Your task to perform on an android device: Clear the cart on bestbuy.com. Search for "logitech g502" on bestbuy.com, select the first entry, add it to the cart, then select checkout. Image 0: 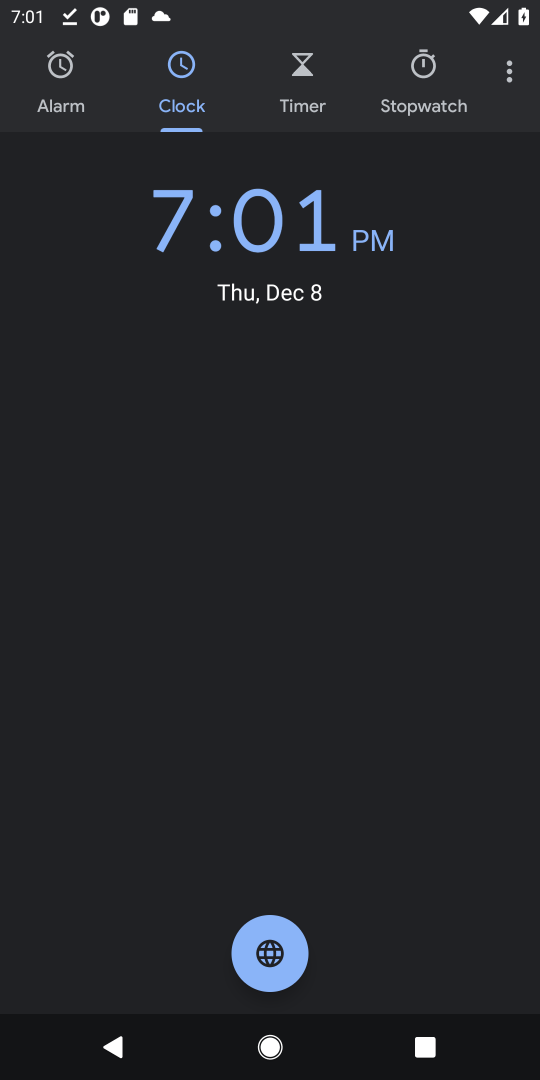
Step 0: click (348, 960)
Your task to perform on an android device: Clear the cart on bestbuy.com. Search for "logitech g502" on bestbuy.com, select the first entry, add it to the cart, then select checkout. Image 1: 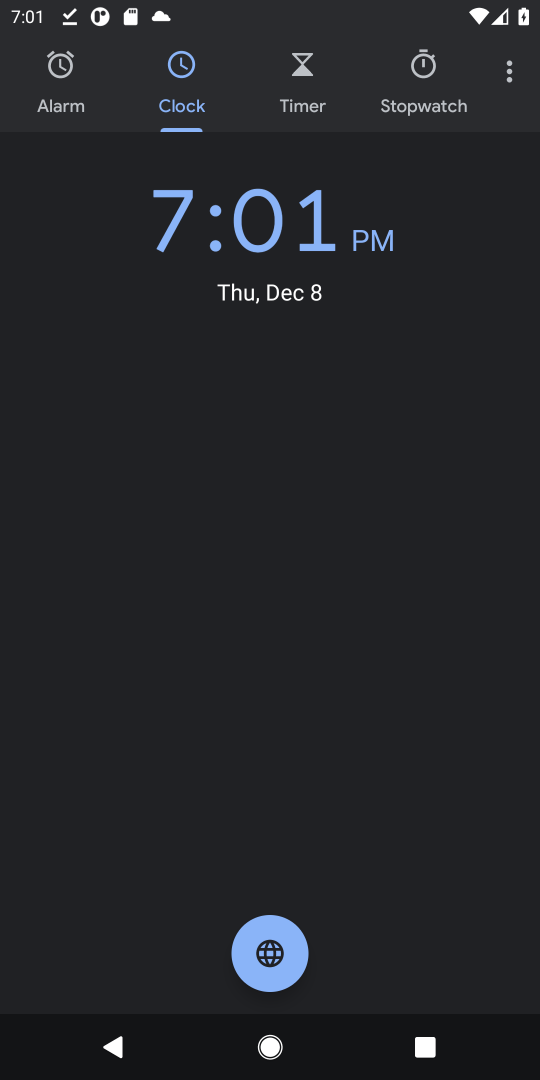
Step 1: press home button
Your task to perform on an android device: Clear the cart on bestbuy.com. Search for "logitech g502" on bestbuy.com, select the first entry, add it to the cart, then select checkout. Image 2: 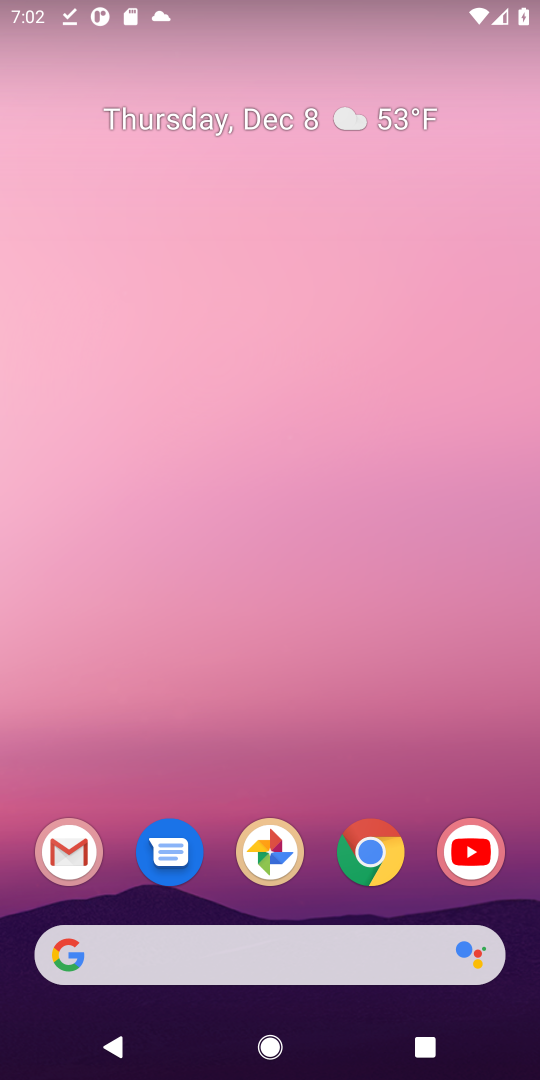
Step 2: click (212, 963)
Your task to perform on an android device: Clear the cart on bestbuy.com. Search for "logitech g502" on bestbuy.com, select the first entry, add it to the cart, then select checkout. Image 3: 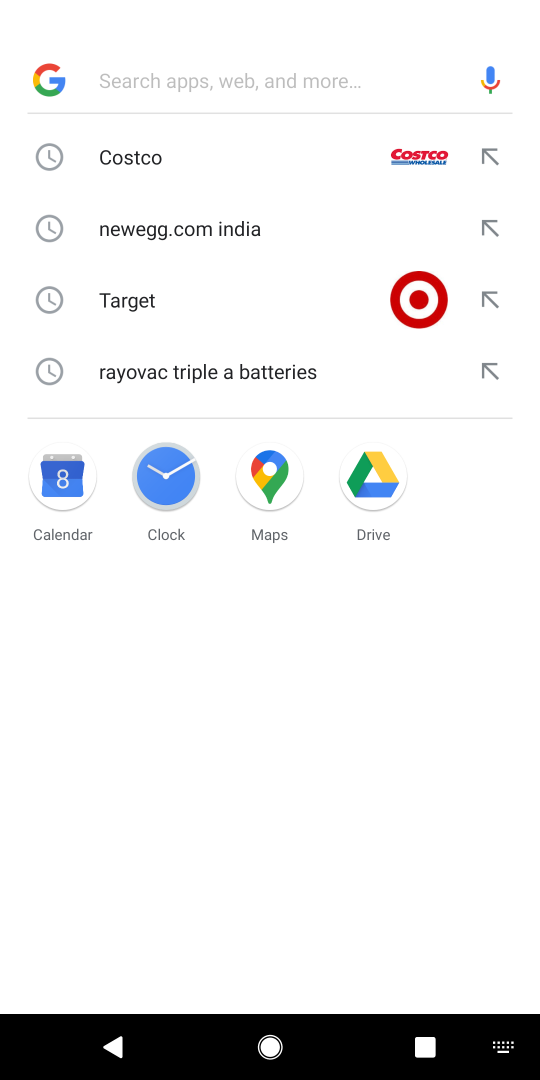
Step 3: type "bestbuy"
Your task to perform on an android device: Clear the cart on bestbuy.com. Search for "logitech g502" on bestbuy.com, select the first entry, add it to the cart, then select checkout. Image 4: 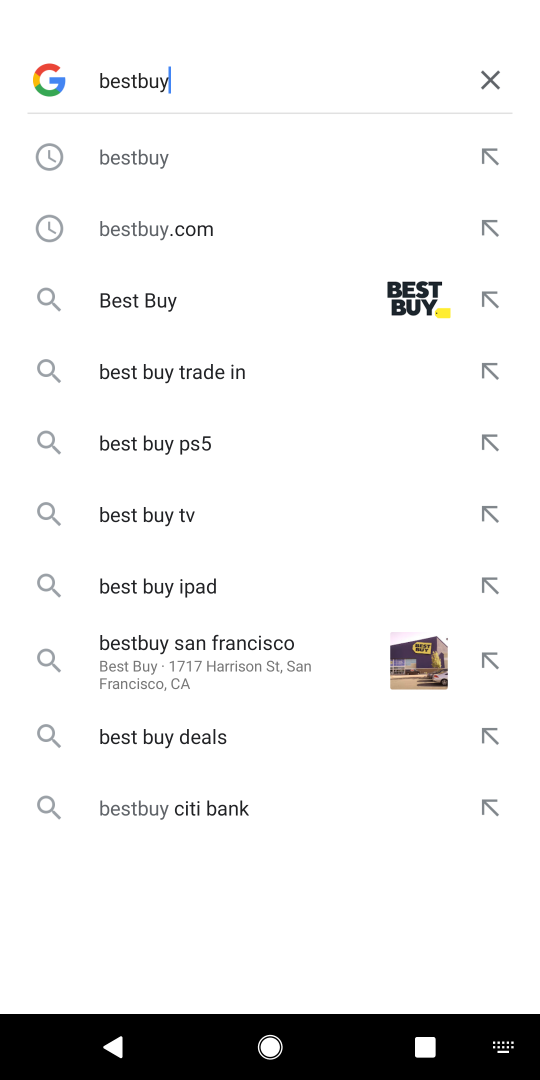
Step 4: click (199, 316)
Your task to perform on an android device: Clear the cart on bestbuy.com. Search for "logitech g502" on bestbuy.com, select the first entry, add it to the cart, then select checkout. Image 5: 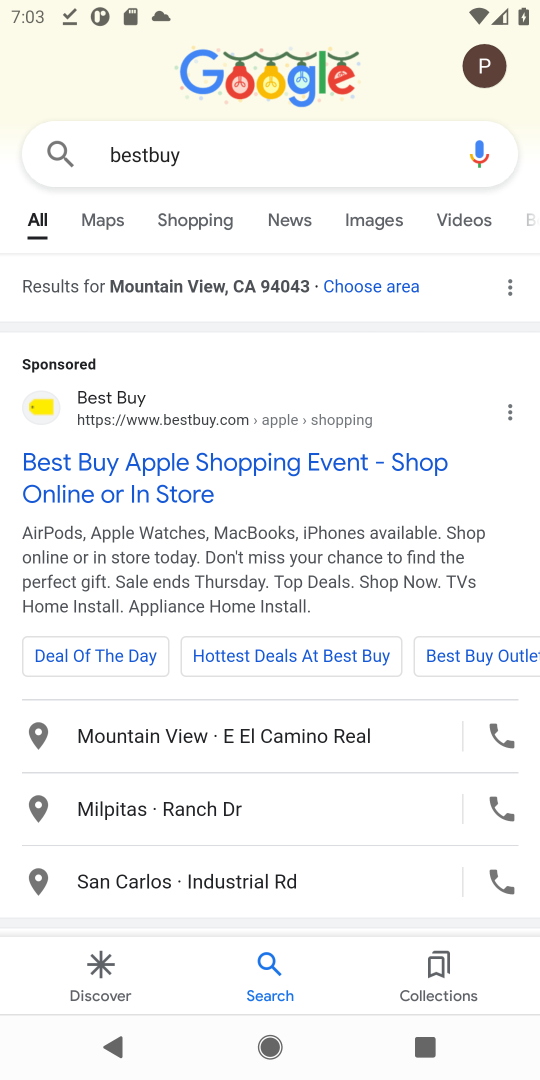
Step 5: click (164, 478)
Your task to perform on an android device: Clear the cart on bestbuy.com. Search for "logitech g502" on bestbuy.com, select the first entry, add it to the cart, then select checkout. Image 6: 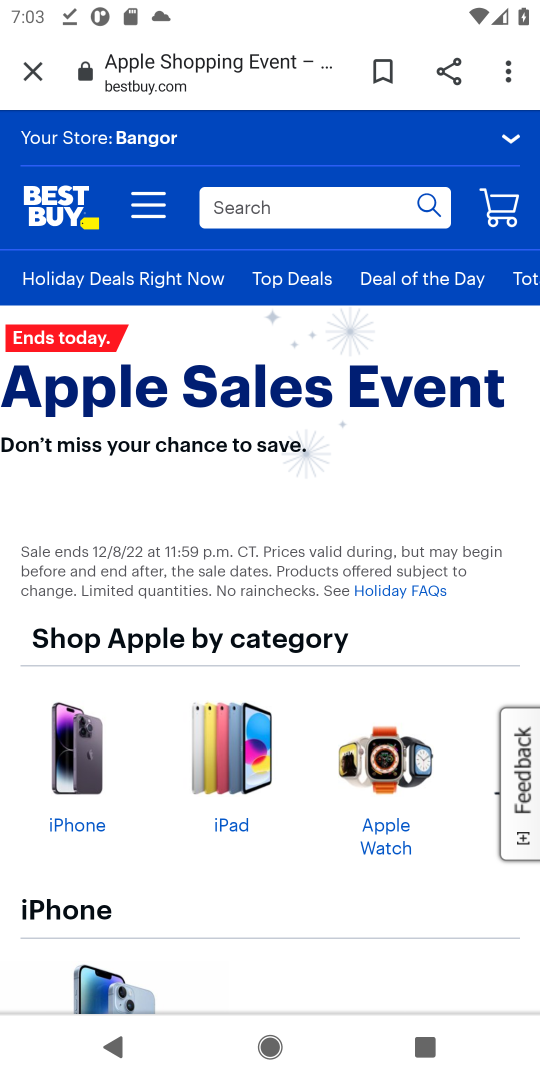
Step 6: task complete